Your task to perform on an android device: open app "Truecaller" (install if not already installed) and enter user name: "coauthor@gmail.com" and password: "quadrangle" Image 0: 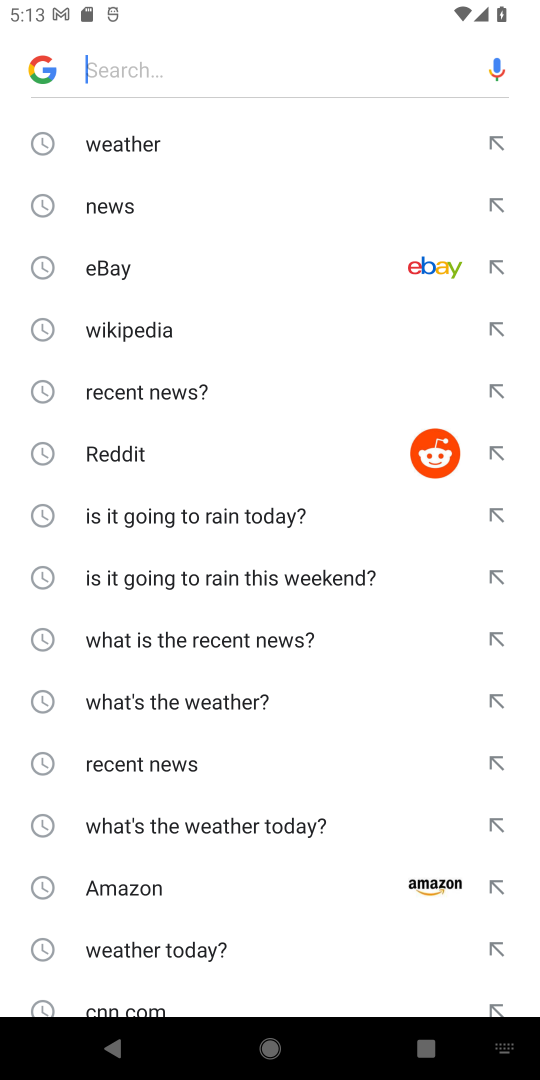
Step 0: press home button
Your task to perform on an android device: open app "Truecaller" (install if not already installed) and enter user name: "coauthor@gmail.com" and password: "quadrangle" Image 1: 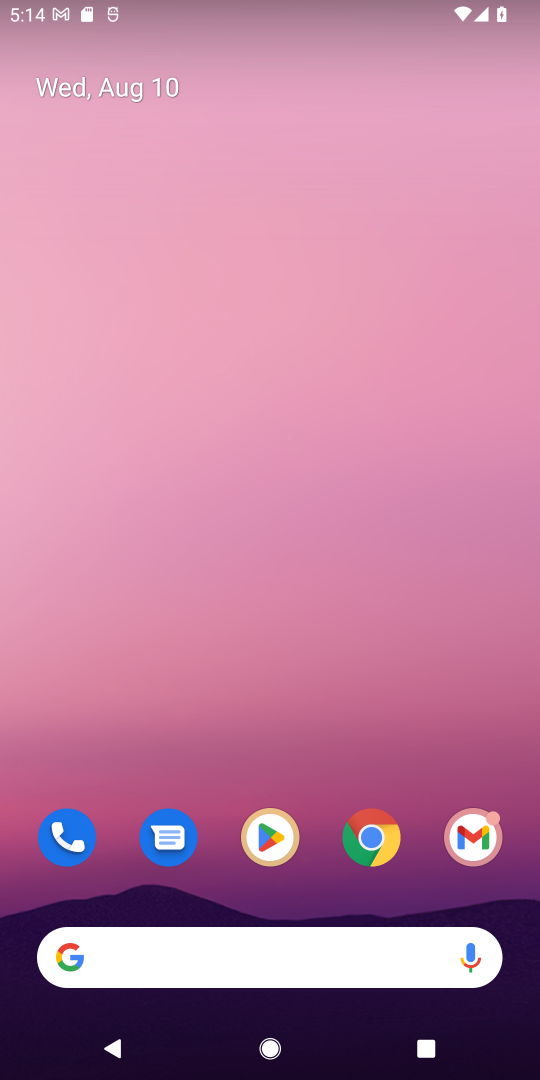
Step 1: click (264, 839)
Your task to perform on an android device: open app "Truecaller" (install if not already installed) and enter user name: "coauthor@gmail.com" and password: "quadrangle" Image 2: 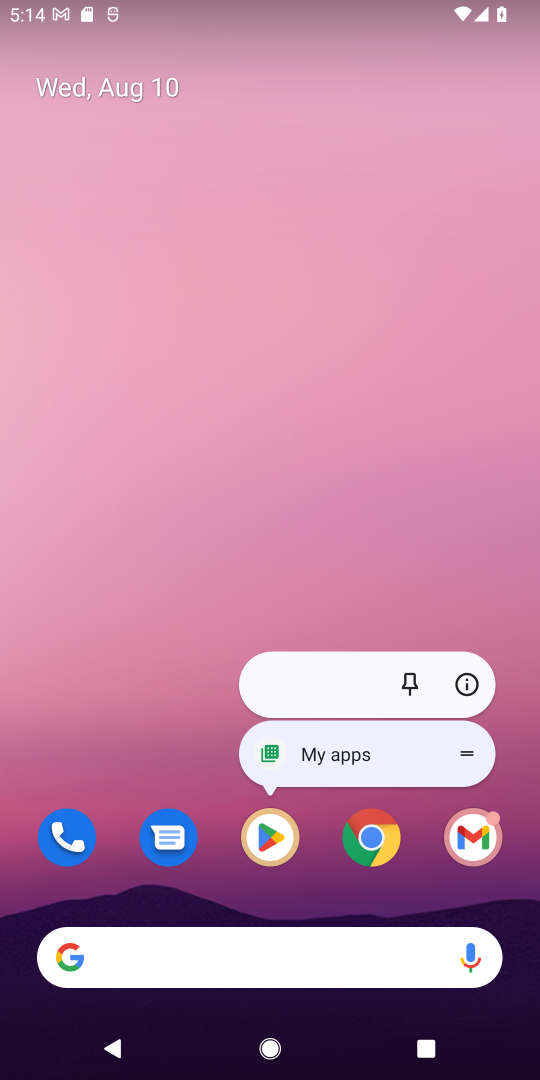
Step 2: click (264, 837)
Your task to perform on an android device: open app "Truecaller" (install if not already installed) and enter user name: "coauthor@gmail.com" and password: "quadrangle" Image 3: 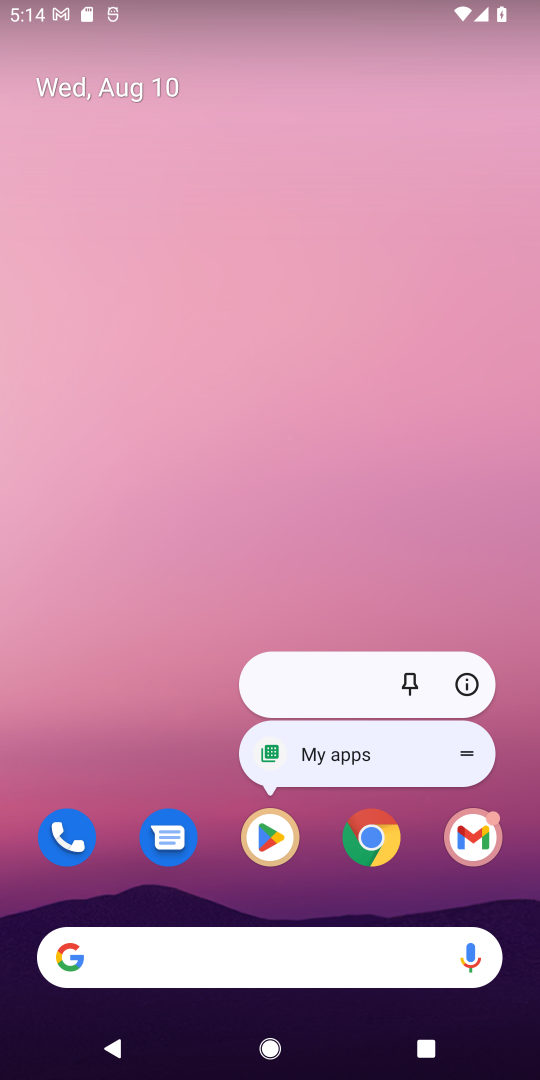
Step 3: click (264, 839)
Your task to perform on an android device: open app "Truecaller" (install if not already installed) and enter user name: "coauthor@gmail.com" and password: "quadrangle" Image 4: 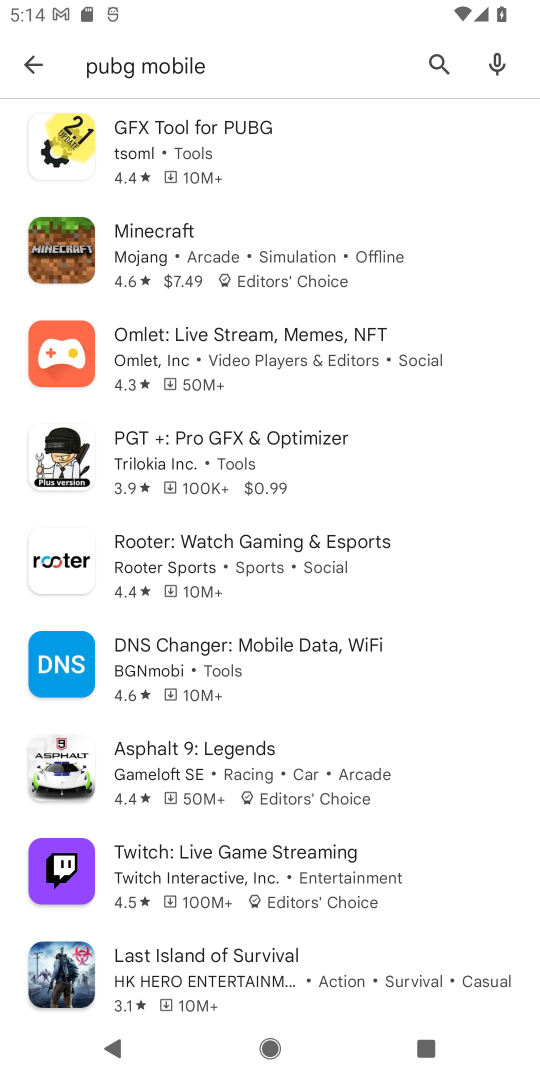
Step 4: click (433, 53)
Your task to perform on an android device: open app "Truecaller" (install if not already installed) and enter user name: "coauthor@gmail.com" and password: "quadrangle" Image 5: 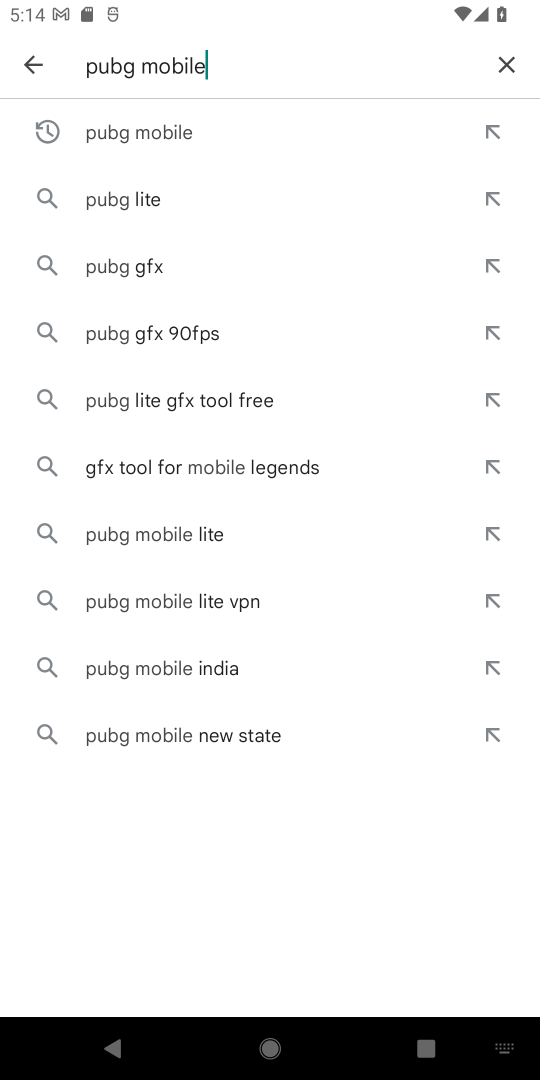
Step 5: click (506, 57)
Your task to perform on an android device: open app "Truecaller" (install if not already installed) and enter user name: "coauthor@gmail.com" and password: "quadrangle" Image 6: 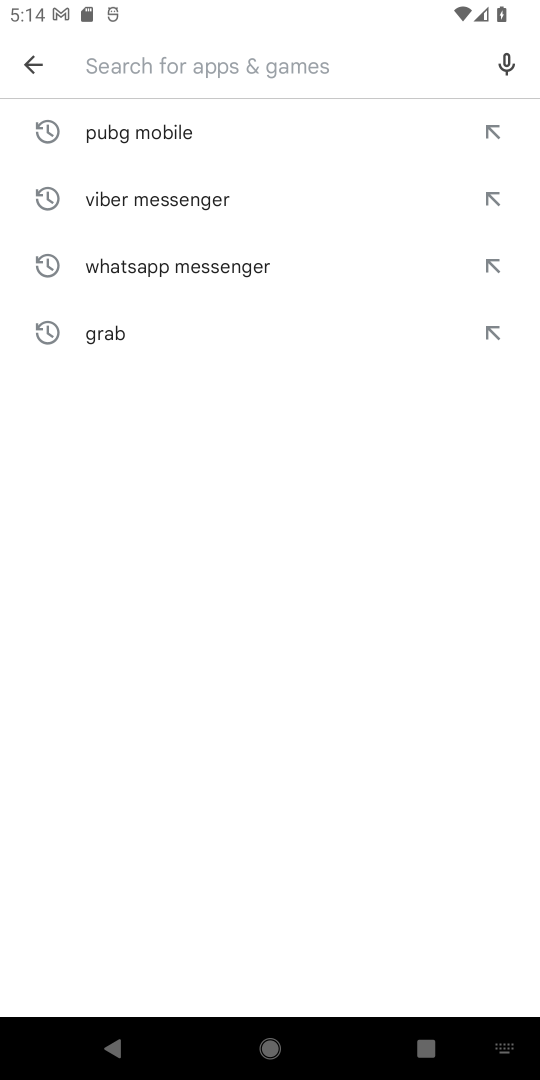
Step 6: type "Truecaller"
Your task to perform on an android device: open app "Truecaller" (install if not already installed) and enter user name: "coauthor@gmail.com" and password: "quadrangle" Image 7: 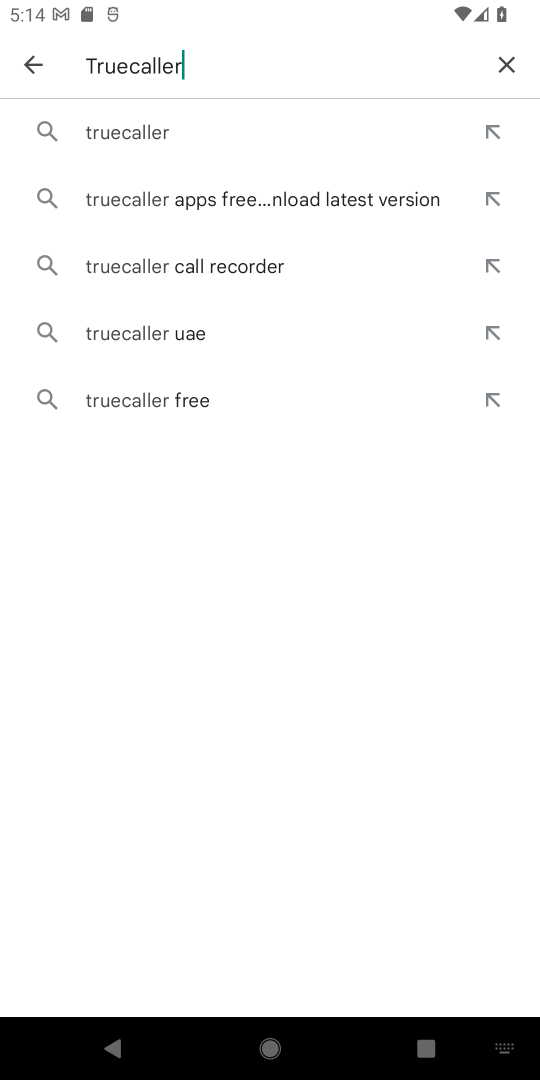
Step 7: click (143, 121)
Your task to perform on an android device: open app "Truecaller" (install if not already installed) and enter user name: "coauthor@gmail.com" and password: "quadrangle" Image 8: 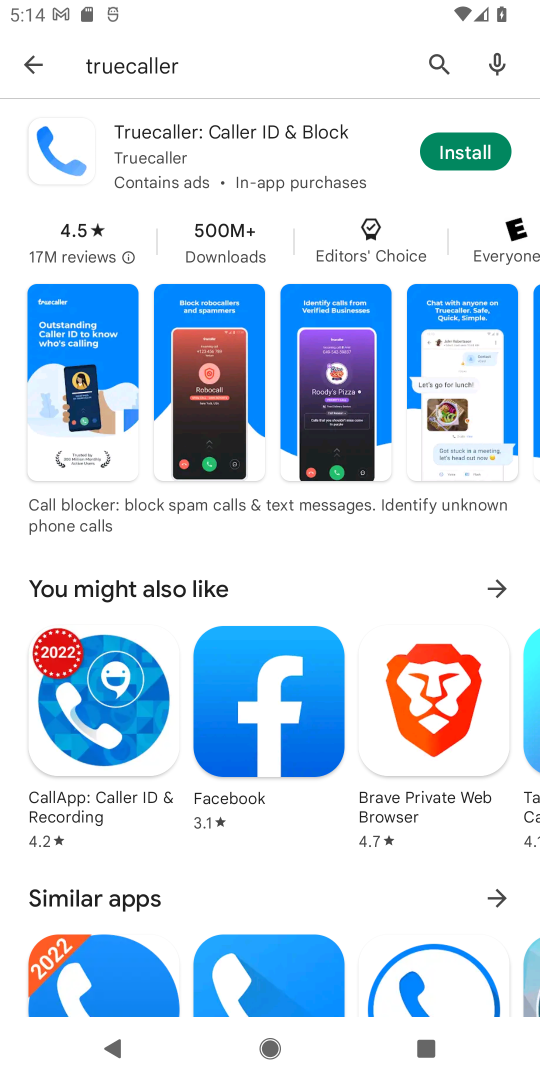
Step 8: click (469, 151)
Your task to perform on an android device: open app "Truecaller" (install if not already installed) and enter user name: "coauthor@gmail.com" and password: "quadrangle" Image 9: 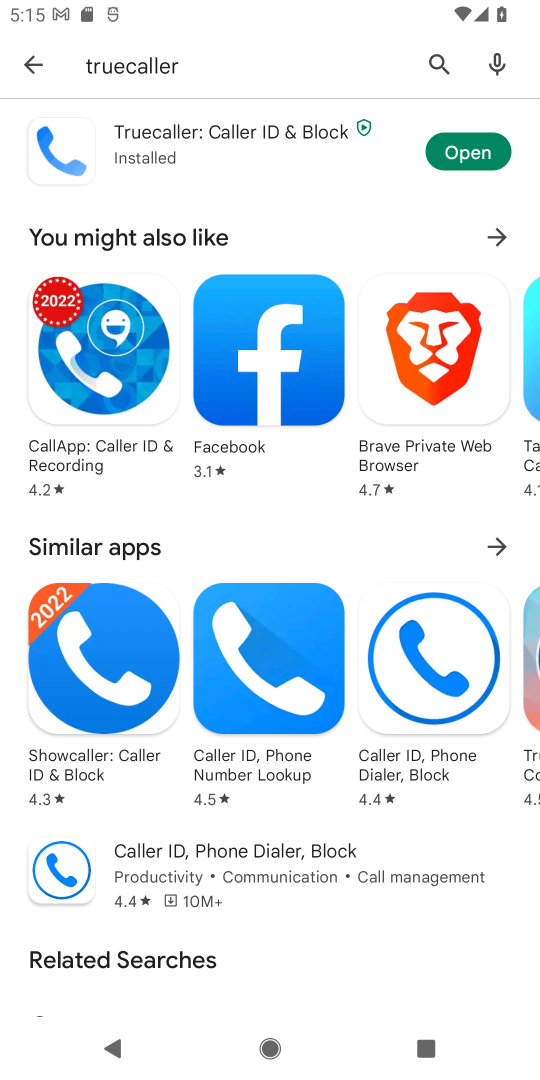
Step 9: click (487, 163)
Your task to perform on an android device: open app "Truecaller" (install if not already installed) and enter user name: "coauthor@gmail.com" and password: "quadrangle" Image 10: 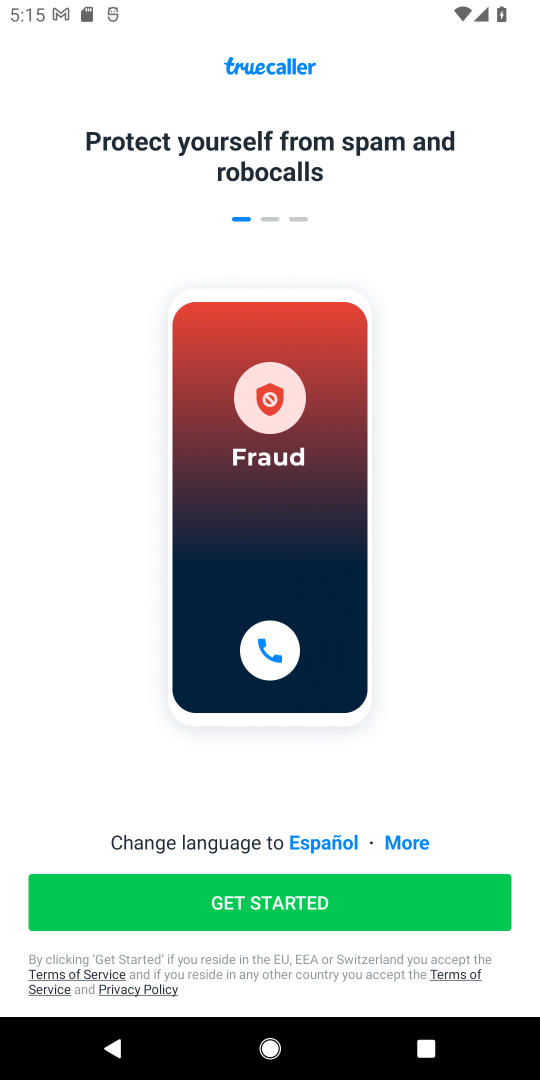
Step 10: click (281, 901)
Your task to perform on an android device: open app "Truecaller" (install if not already installed) and enter user name: "coauthor@gmail.com" and password: "quadrangle" Image 11: 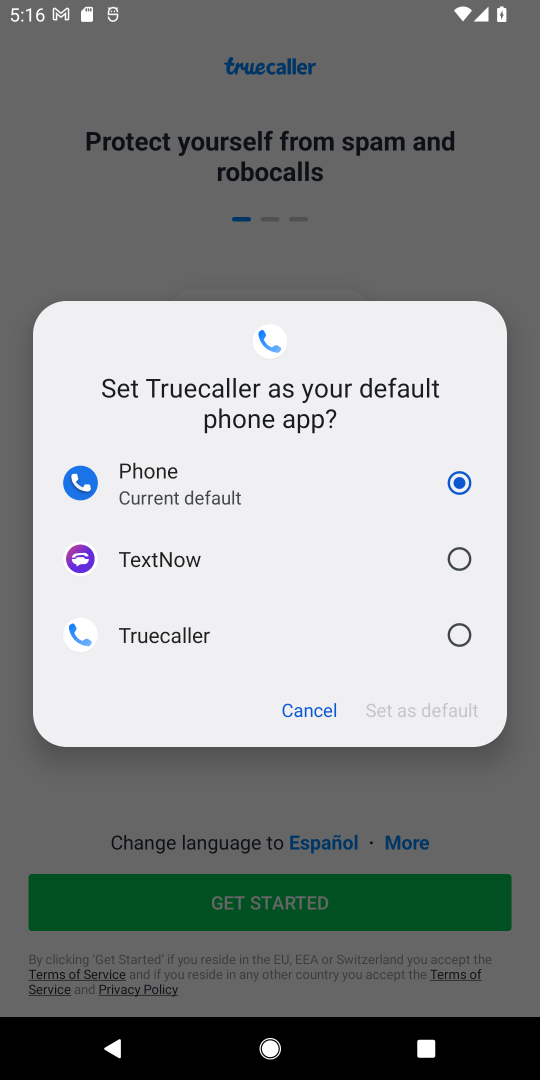
Step 11: task complete